Your task to perform on an android device: Show me productivity apps on the Play Store Image 0: 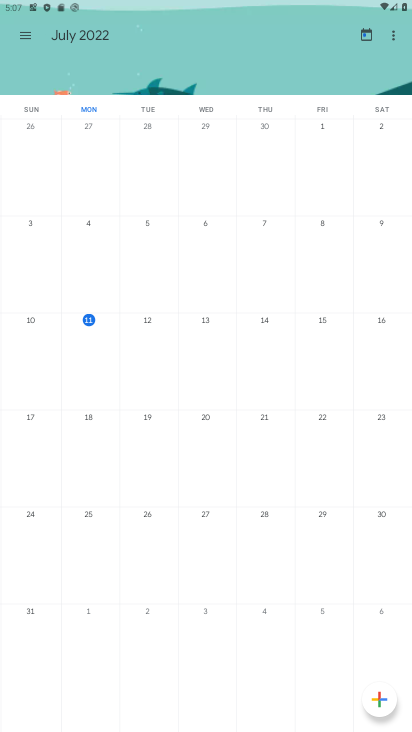
Step 0: press home button
Your task to perform on an android device: Show me productivity apps on the Play Store Image 1: 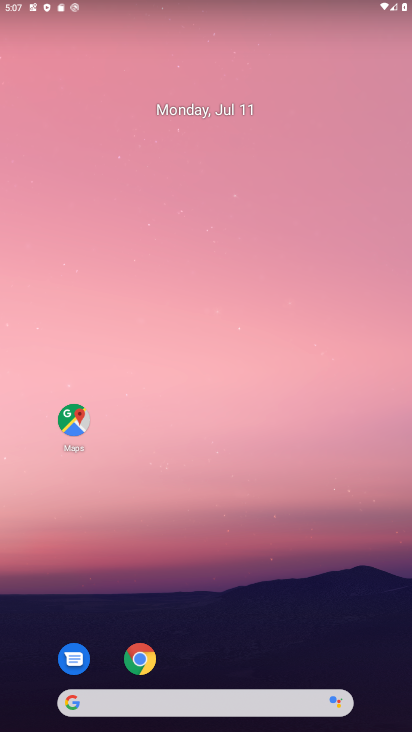
Step 1: drag from (343, 654) to (286, 26)
Your task to perform on an android device: Show me productivity apps on the Play Store Image 2: 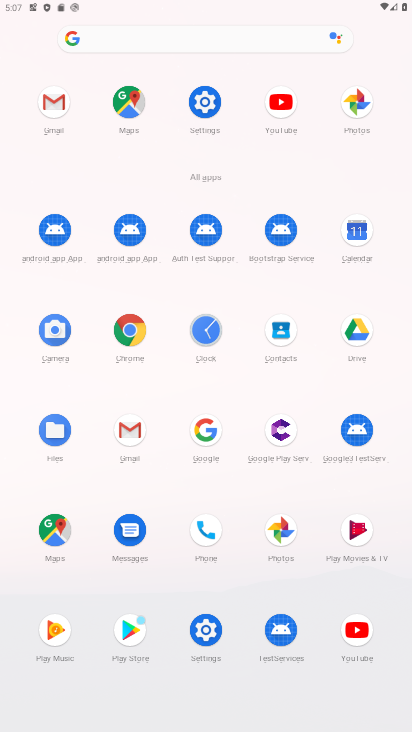
Step 2: click (133, 630)
Your task to perform on an android device: Show me productivity apps on the Play Store Image 3: 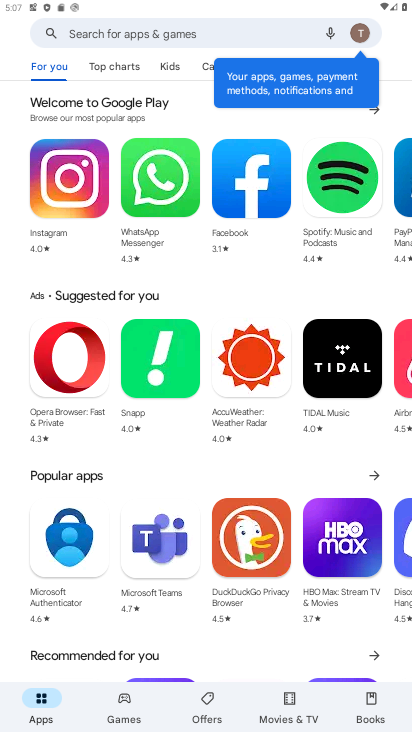
Step 3: click (124, 725)
Your task to perform on an android device: Show me productivity apps on the Play Store Image 4: 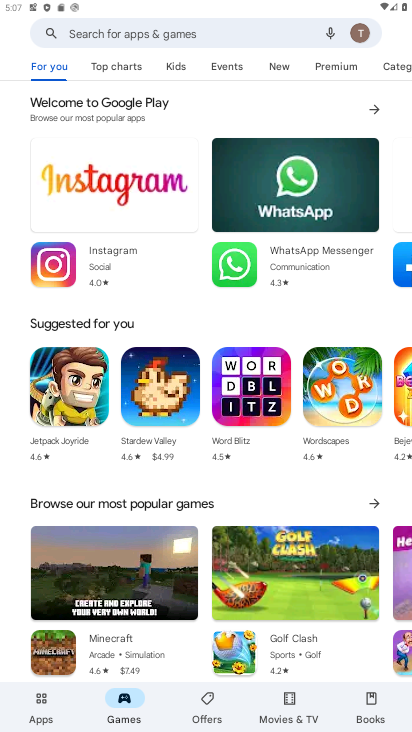
Step 4: click (48, 704)
Your task to perform on an android device: Show me productivity apps on the Play Store Image 5: 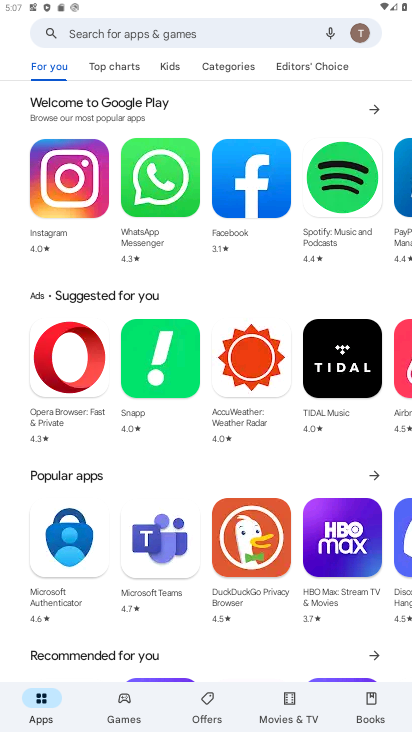
Step 5: click (227, 69)
Your task to perform on an android device: Show me productivity apps on the Play Store Image 6: 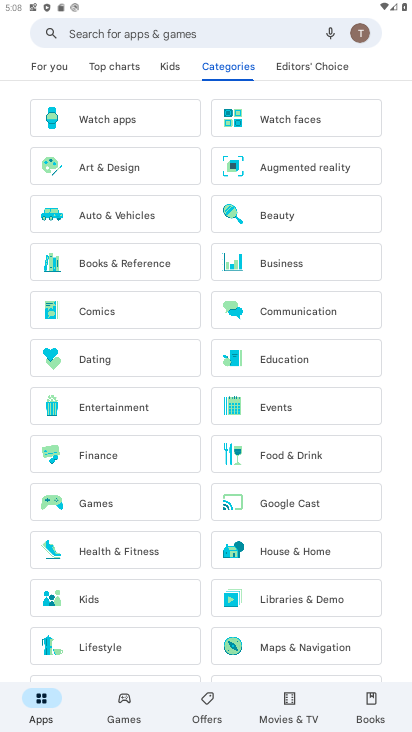
Step 6: drag from (201, 654) to (217, 327)
Your task to perform on an android device: Show me productivity apps on the Play Store Image 7: 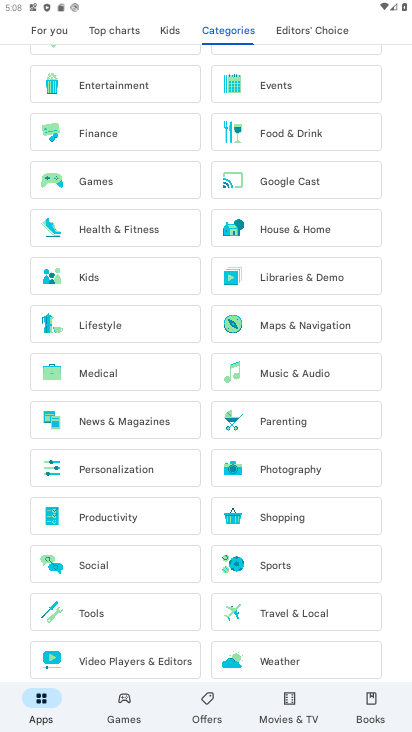
Step 7: click (104, 516)
Your task to perform on an android device: Show me productivity apps on the Play Store Image 8: 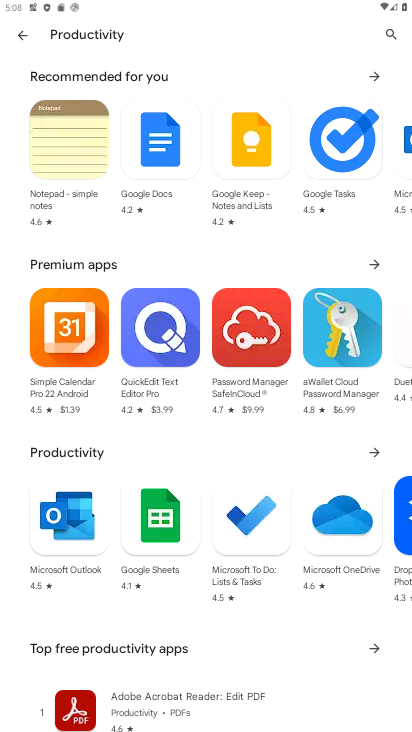
Step 8: drag from (242, 610) to (226, 278)
Your task to perform on an android device: Show me productivity apps on the Play Store Image 9: 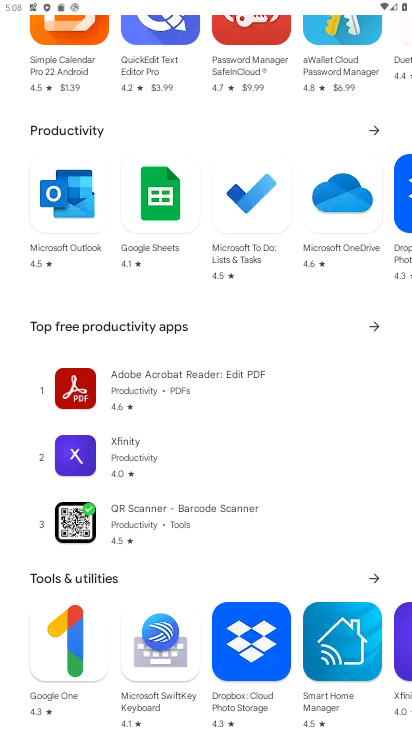
Step 9: click (372, 128)
Your task to perform on an android device: Show me productivity apps on the Play Store Image 10: 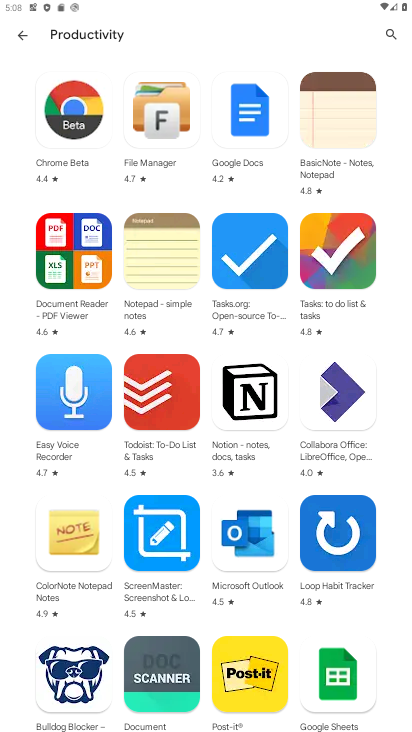
Step 10: task complete